Your task to perform on an android device: turn vacation reply on in the gmail app Image 0: 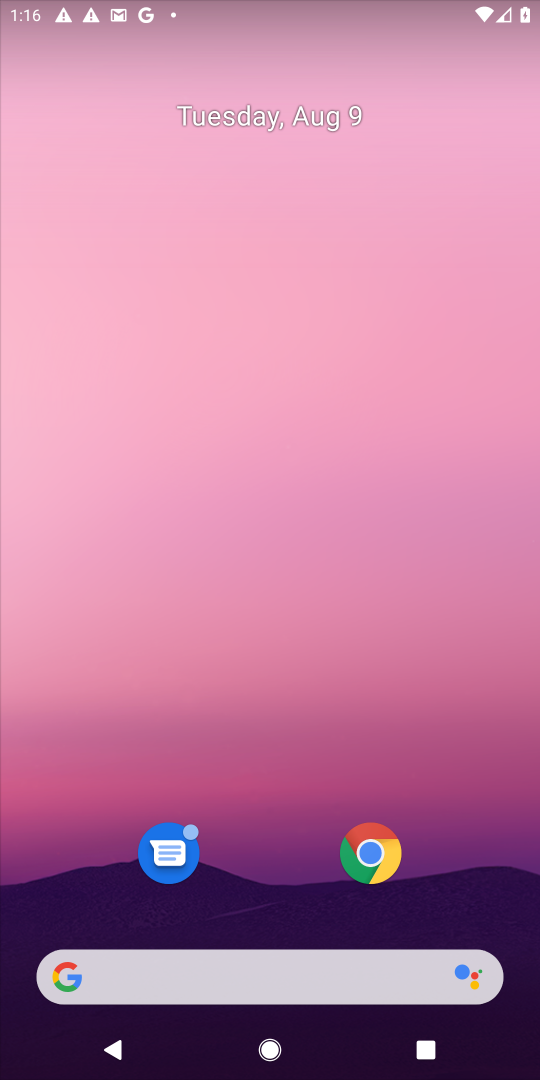
Step 0: drag from (294, 788) to (343, 98)
Your task to perform on an android device: turn vacation reply on in the gmail app Image 1: 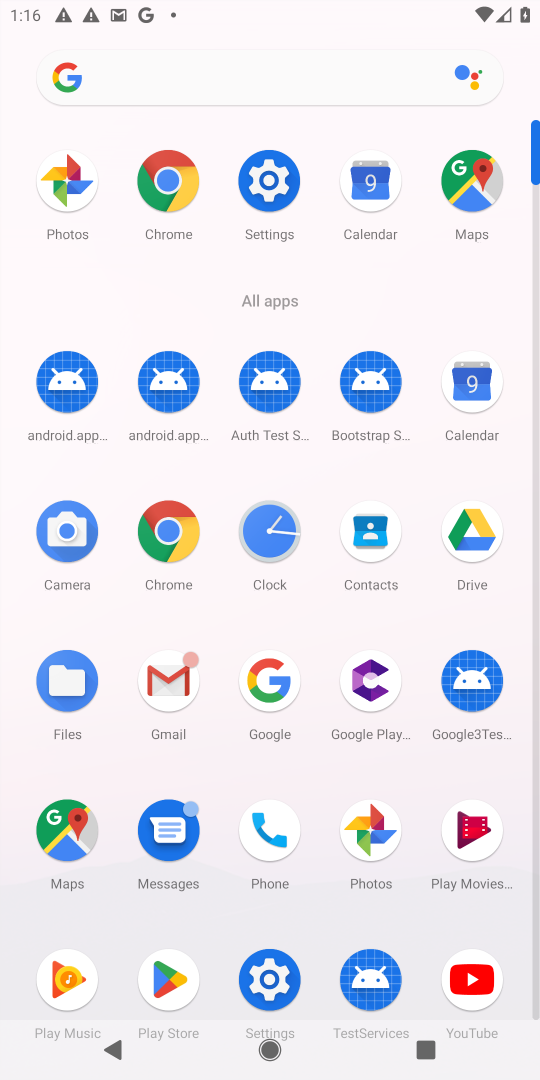
Step 1: click (179, 679)
Your task to perform on an android device: turn vacation reply on in the gmail app Image 2: 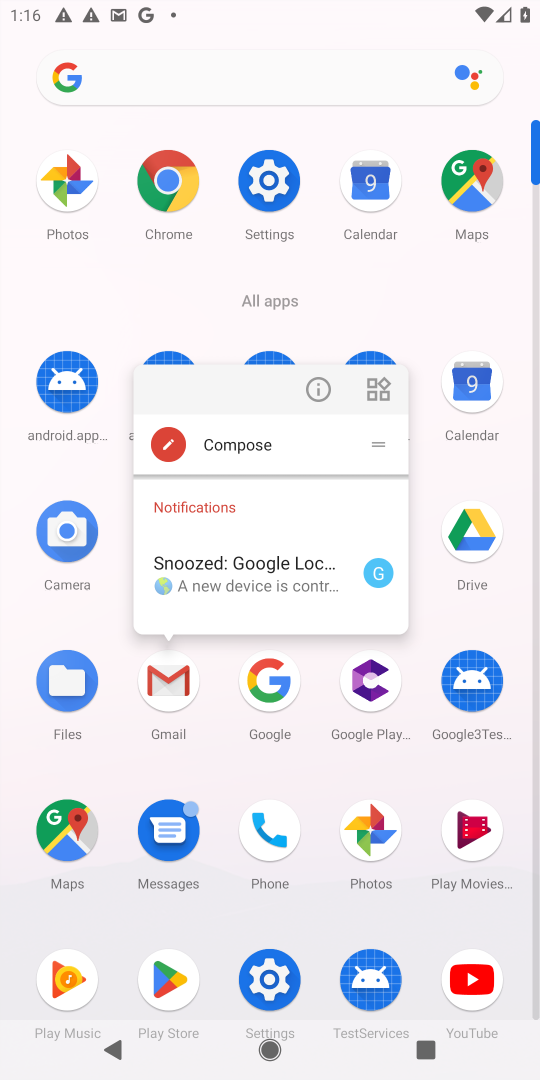
Step 2: click (161, 674)
Your task to perform on an android device: turn vacation reply on in the gmail app Image 3: 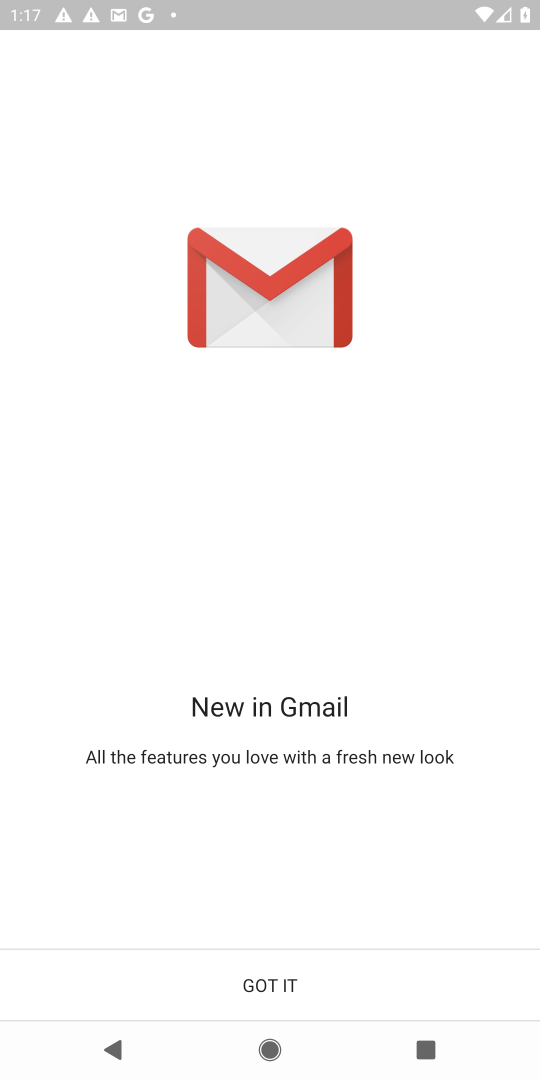
Step 3: click (272, 975)
Your task to perform on an android device: turn vacation reply on in the gmail app Image 4: 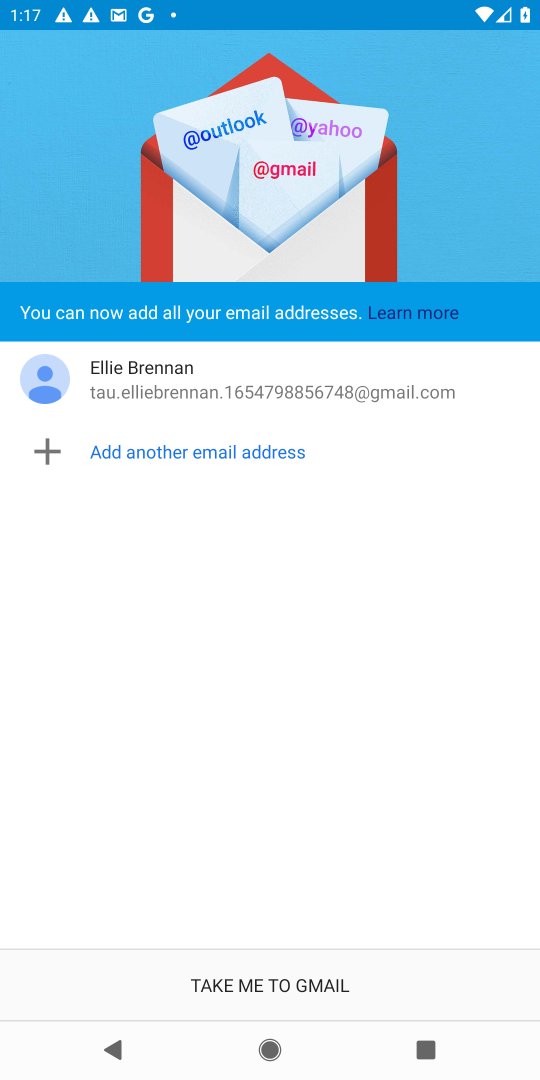
Step 4: click (261, 985)
Your task to perform on an android device: turn vacation reply on in the gmail app Image 5: 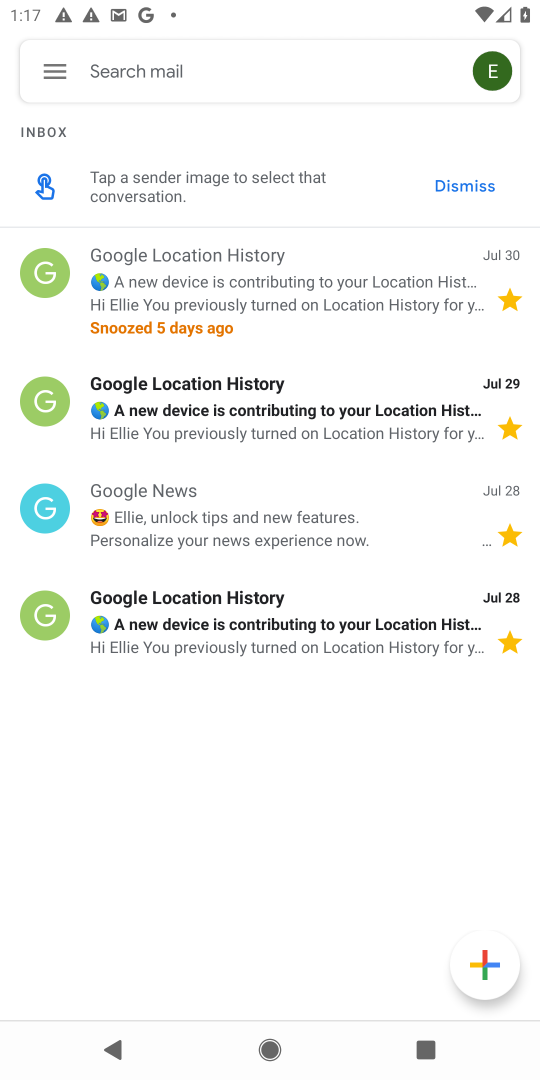
Step 5: click (44, 77)
Your task to perform on an android device: turn vacation reply on in the gmail app Image 6: 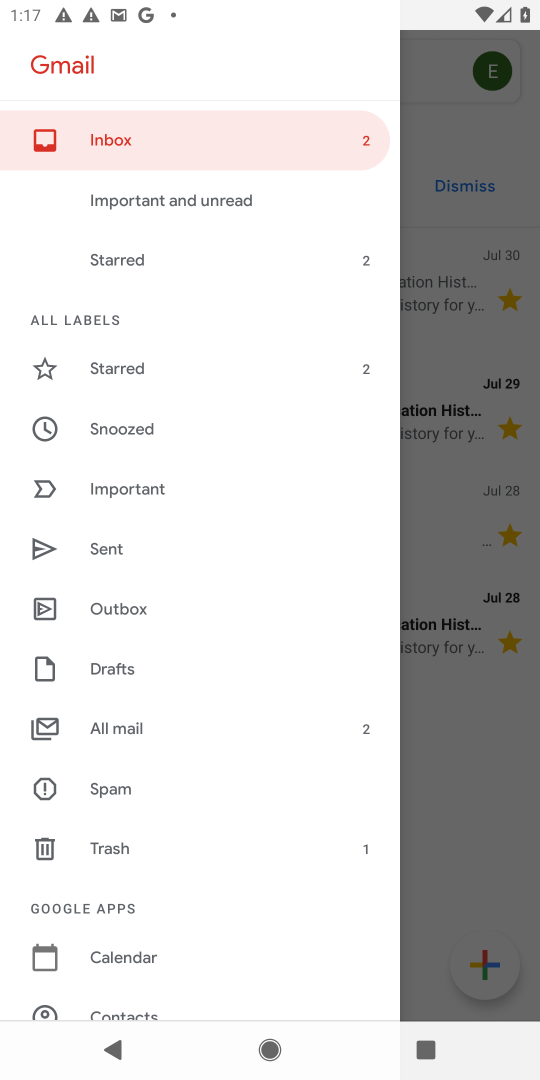
Step 6: drag from (145, 959) to (197, 437)
Your task to perform on an android device: turn vacation reply on in the gmail app Image 7: 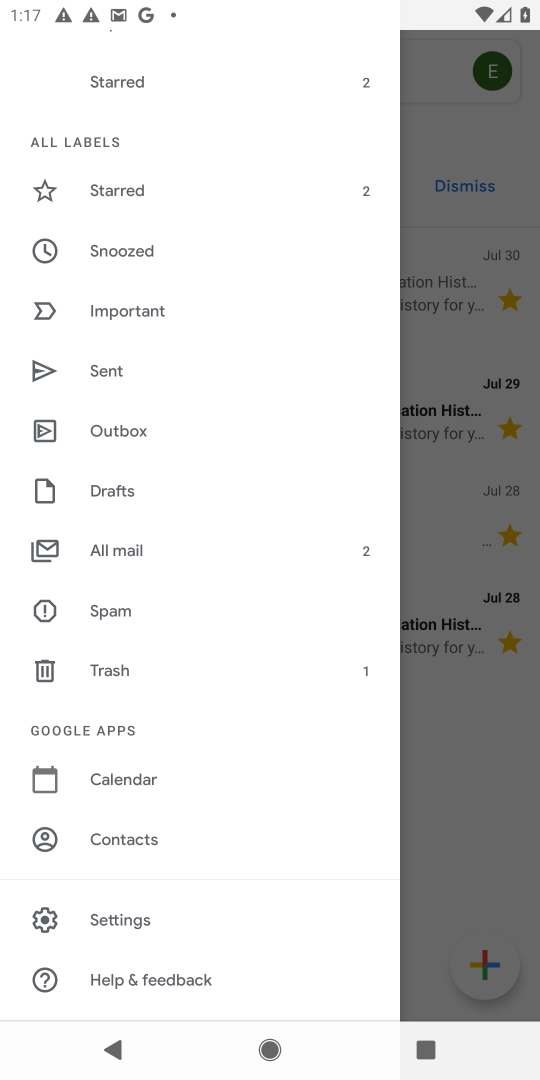
Step 7: click (130, 911)
Your task to perform on an android device: turn vacation reply on in the gmail app Image 8: 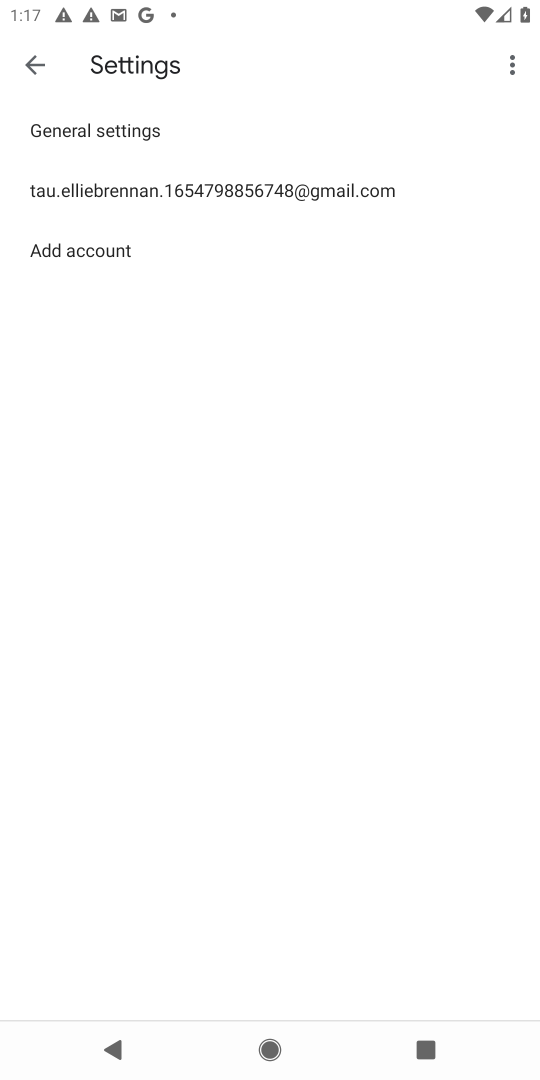
Step 8: click (191, 197)
Your task to perform on an android device: turn vacation reply on in the gmail app Image 9: 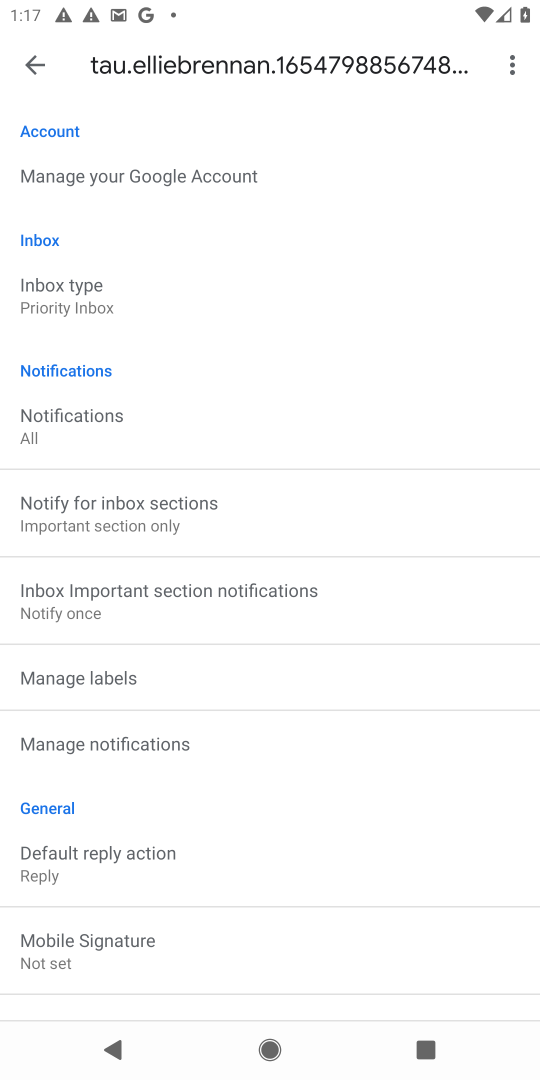
Step 9: drag from (237, 924) to (350, 169)
Your task to perform on an android device: turn vacation reply on in the gmail app Image 10: 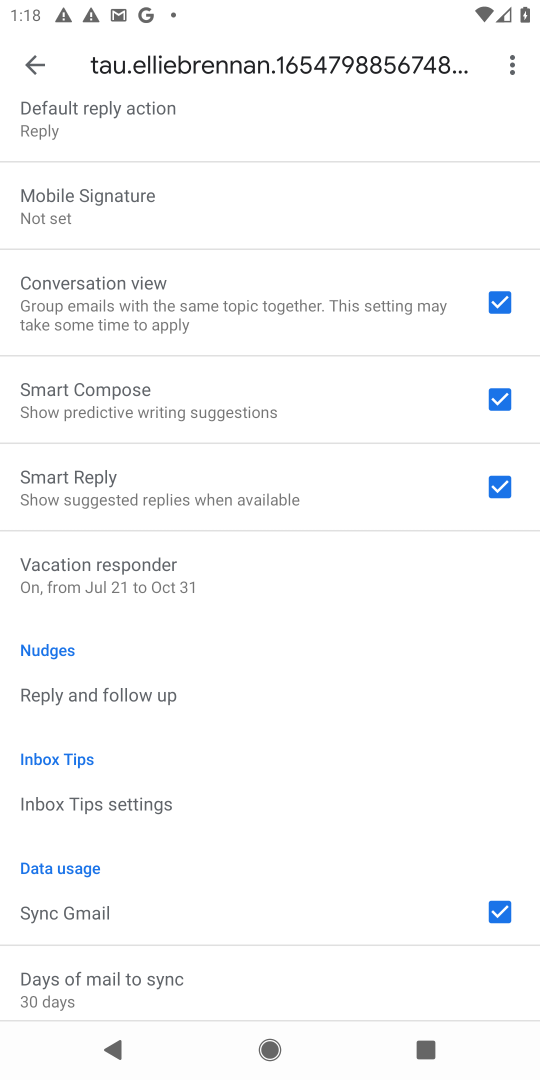
Step 10: click (104, 576)
Your task to perform on an android device: turn vacation reply on in the gmail app Image 11: 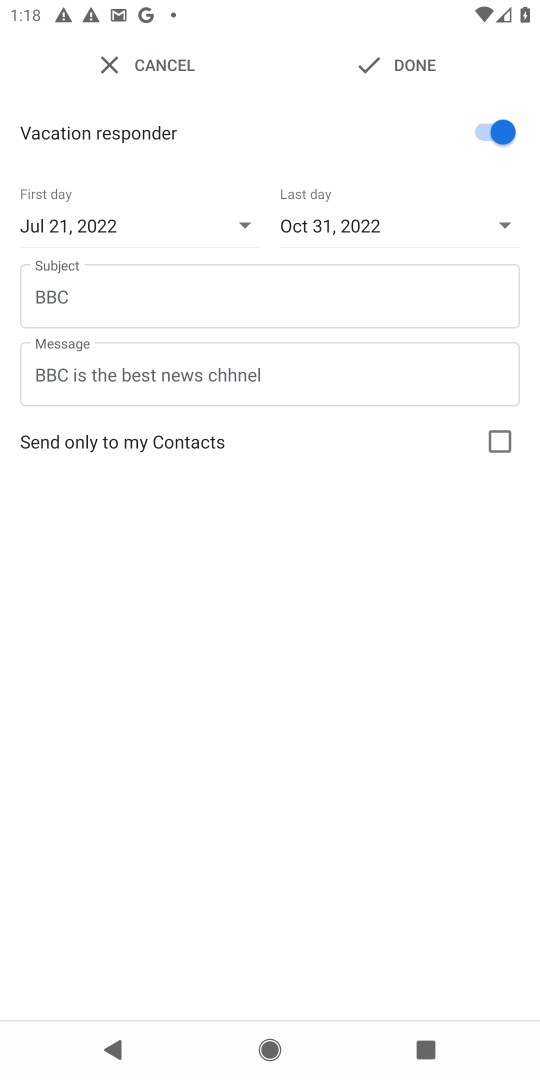
Step 11: task complete